Your task to perform on an android device: Go to Amazon Image 0: 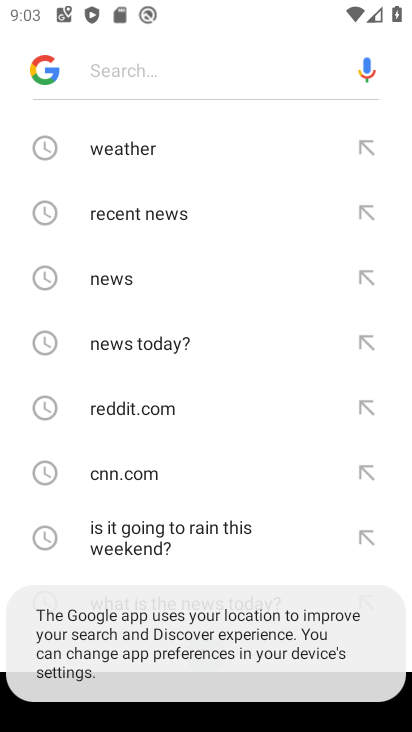
Step 0: press home button
Your task to perform on an android device: Go to Amazon Image 1: 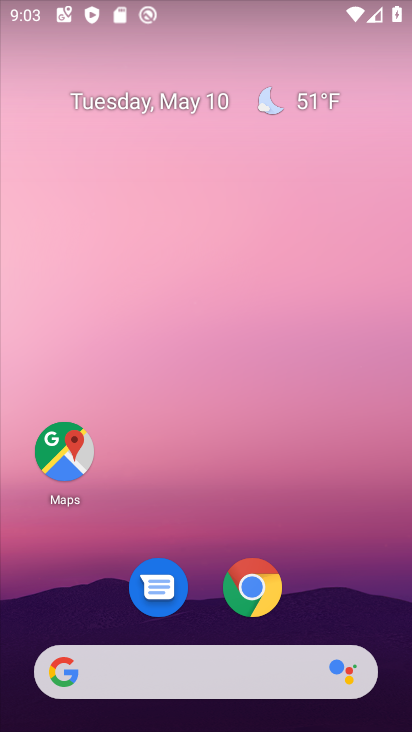
Step 1: click (257, 587)
Your task to perform on an android device: Go to Amazon Image 2: 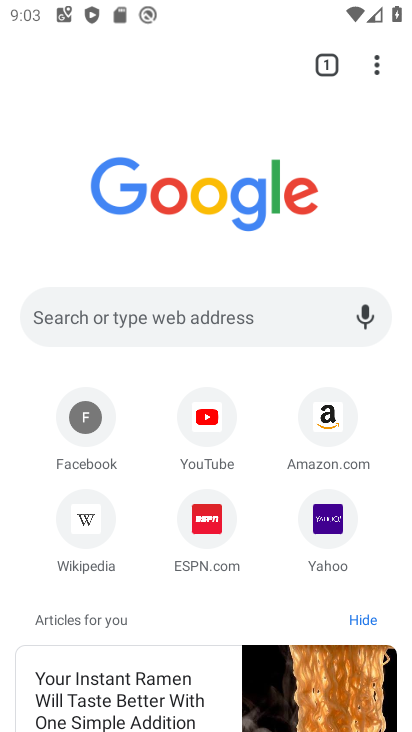
Step 2: click (316, 412)
Your task to perform on an android device: Go to Amazon Image 3: 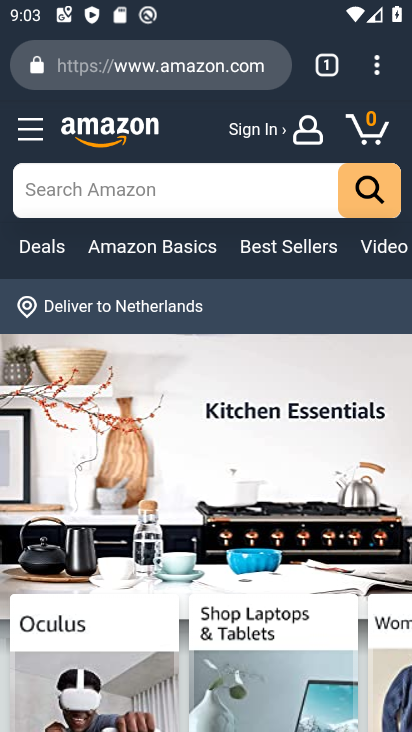
Step 3: task complete